Your task to perform on an android device: open a bookmark in the chrome app Image 0: 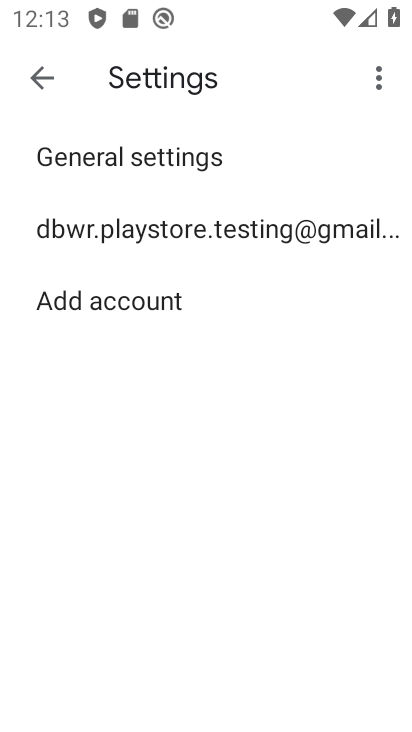
Step 0: press home button
Your task to perform on an android device: open a bookmark in the chrome app Image 1: 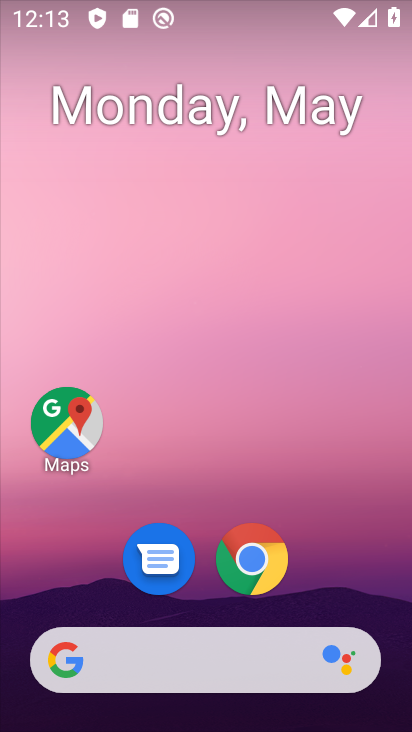
Step 1: drag from (328, 594) to (271, 99)
Your task to perform on an android device: open a bookmark in the chrome app Image 2: 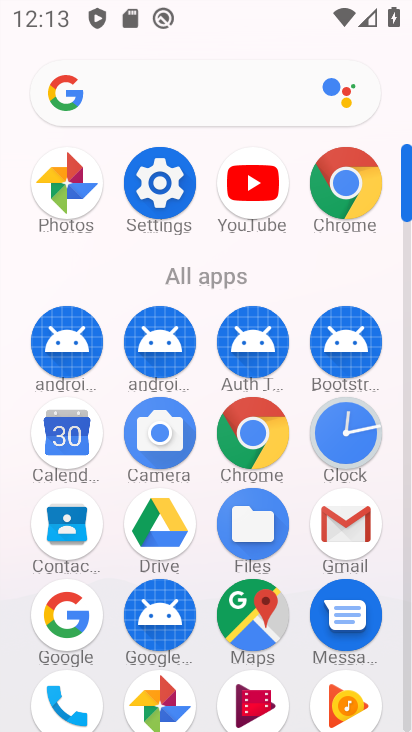
Step 2: click (249, 424)
Your task to perform on an android device: open a bookmark in the chrome app Image 3: 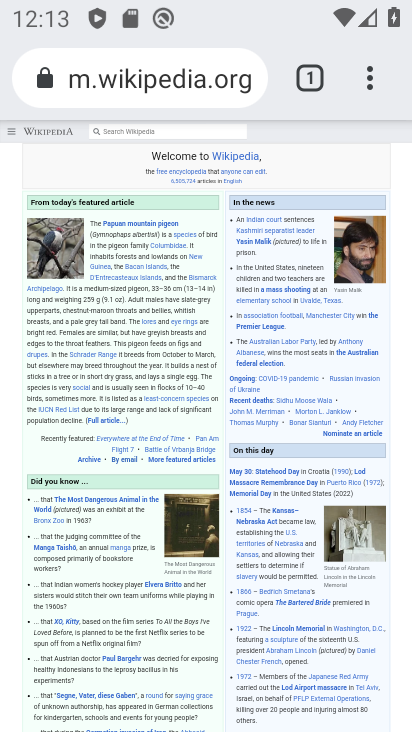
Step 3: drag from (363, 71) to (160, 288)
Your task to perform on an android device: open a bookmark in the chrome app Image 4: 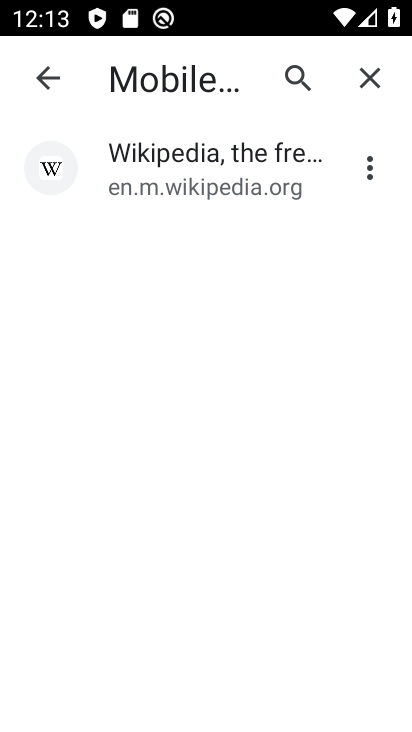
Step 4: click (209, 176)
Your task to perform on an android device: open a bookmark in the chrome app Image 5: 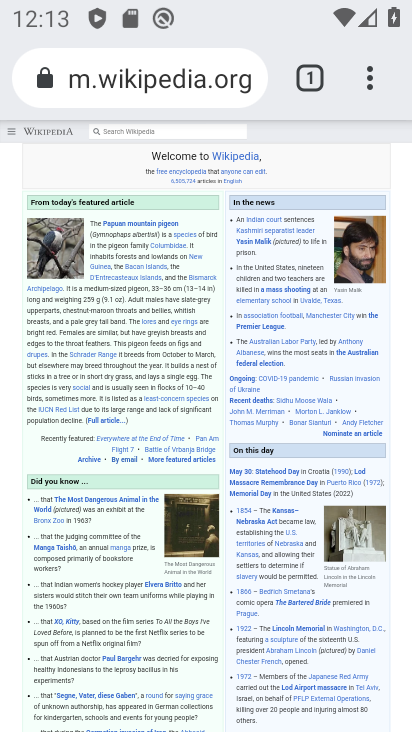
Step 5: task complete